Your task to perform on an android device: read, delete, or share a saved page in the chrome app Image 0: 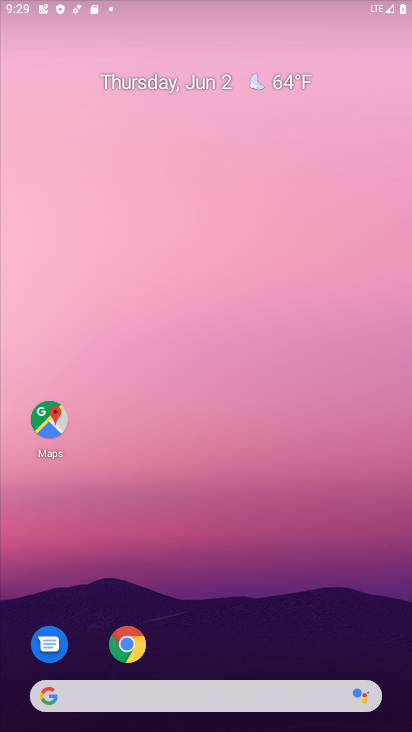
Step 0: press home button
Your task to perform on an android device: read, delete, or share a saved page in the chrome app Image 1: 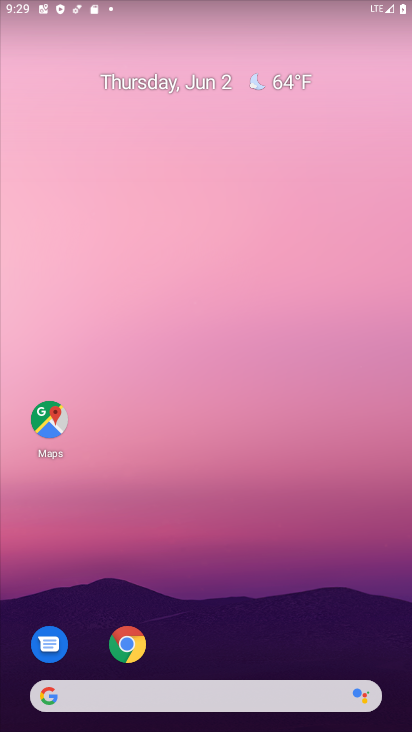
Step 1: click (333, 595)
Your task to perform on an android device: read, delete, or share a saved page in the chrome app Image 2: 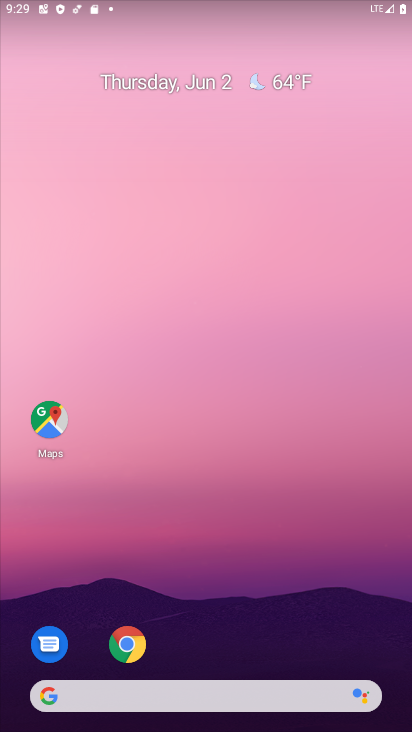
Step 2: click (123, 648)
Your task to perform on an android device: read, delete, or share a saved page in the chrome app Image 3: 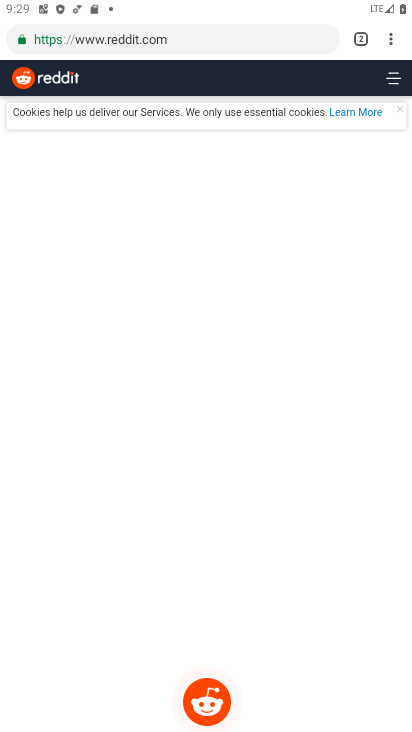
Step 3: drag from (386, 27) to (273, 249)
Your task to perform on an android device: read, delete, or share a saved page in the chrome app Image 4: 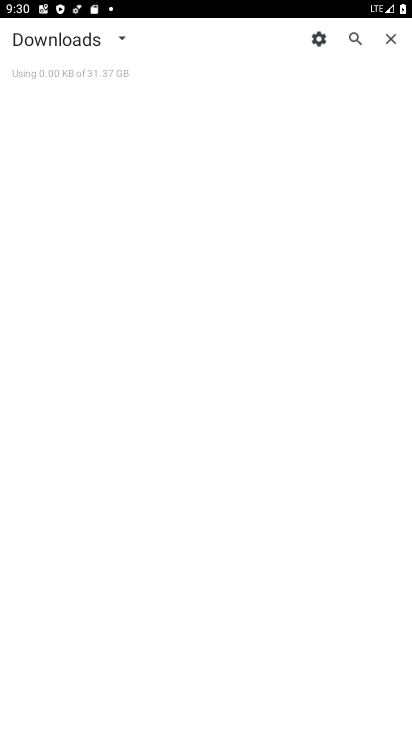
Step 4: click (115, 41)
Your task to perform on an android device: read, delete, or share a saved page in the chrome app Image 5: 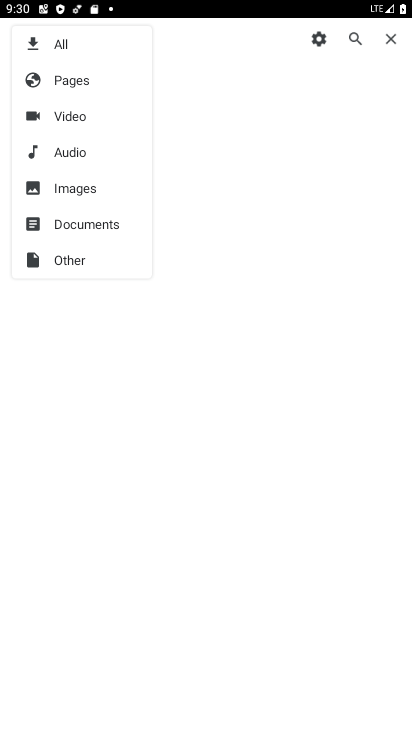
Step 5: click (73, 73)
Your task to perform on an android device: read, delete, or share a saved page in the chrome app Image 6: 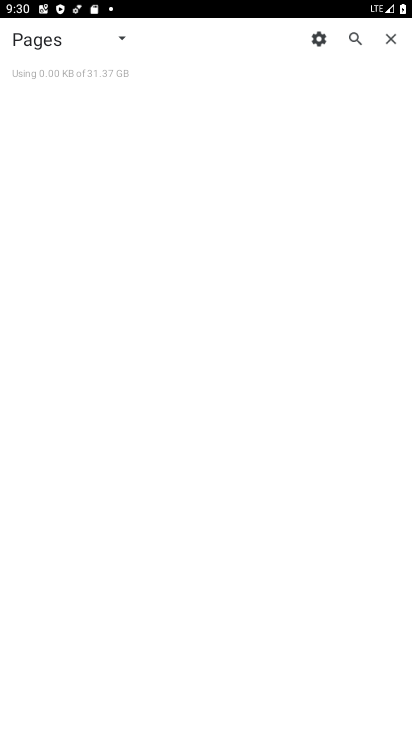
Step 6: task complete